Your task to perform on an android device: What's the weather today? Image 0: 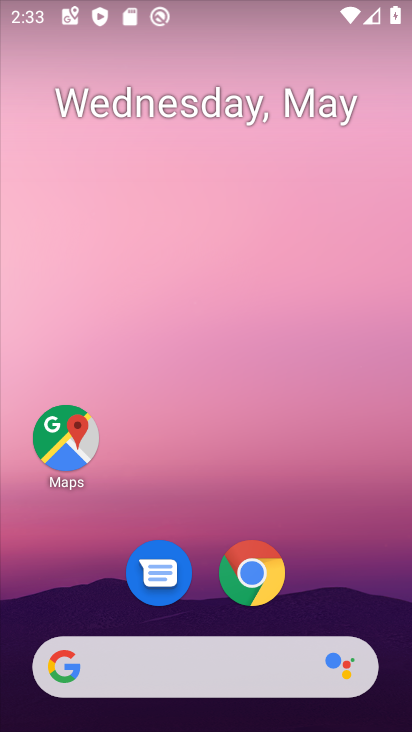
Step 0: drag from (324, 597) to (338, 48)
Your task to perform on an android device: What's the weather today? Image 1: 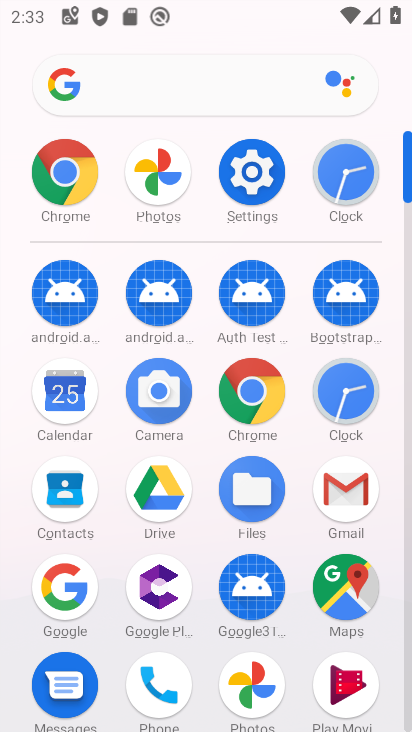
Step 1: click (154, 73)
Your task to perform on an android device: What's the weather today? Image 2: 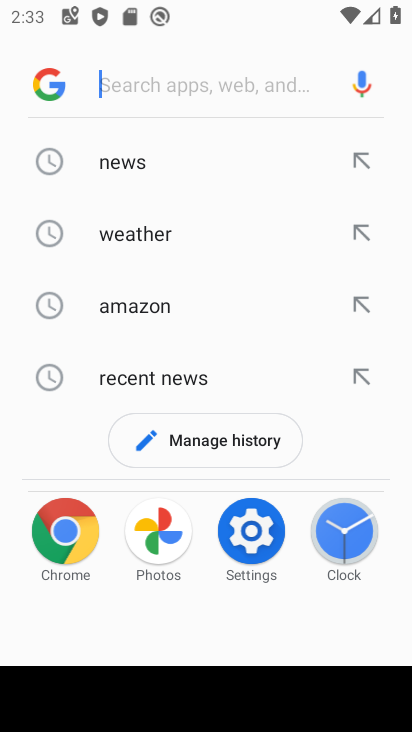
Step 2: type "what's the weather today"
Your task to perform on an android device: What's the weather today? Image 3: 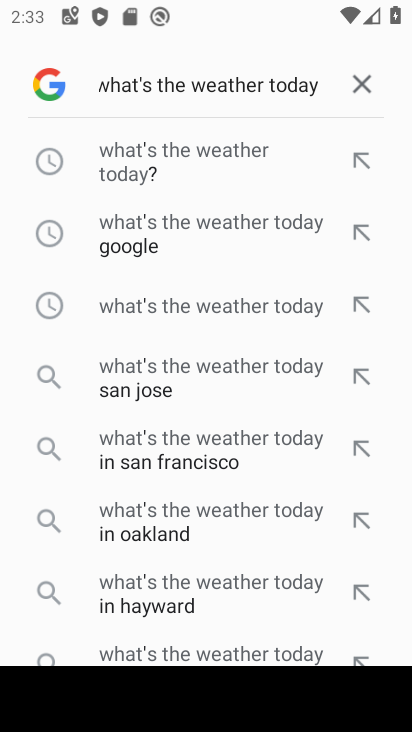
Step 3: click (148, 154)
Your task to perform on an android device: What's the weather today? Image 4: 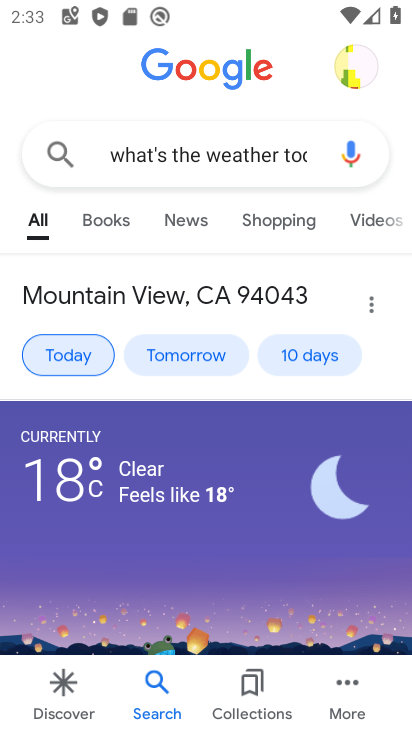
Step 4: task complete